Your task to perform on an android device: Open Yahoo.com Image 0: 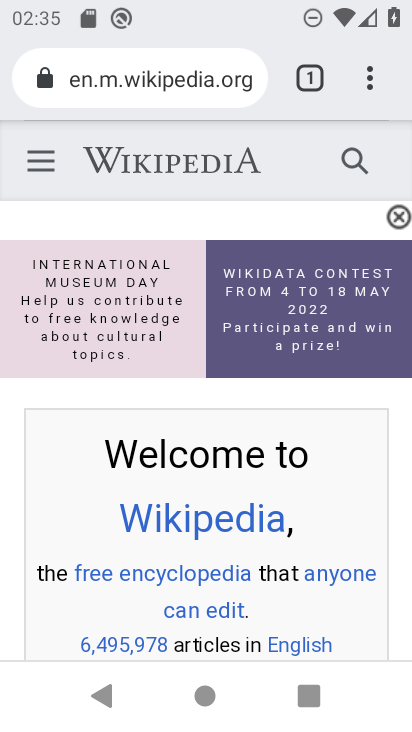
Step 0: press home button
Your task to perform on an android device: Open Yahoo.com Image 1: 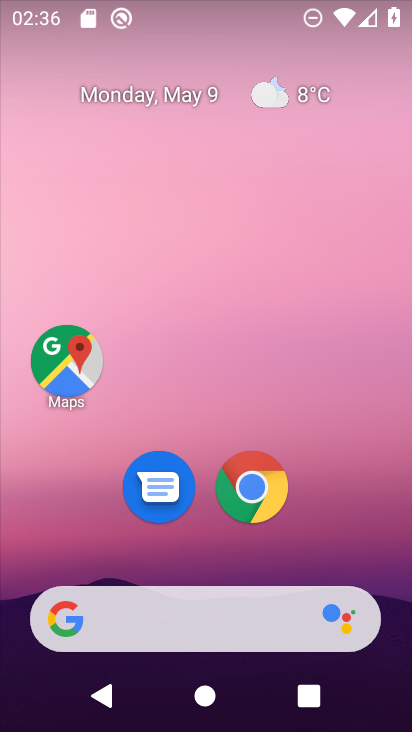
Step 1: click (259, 491)
Your task to perform on an android device: Open Yahoo.com Image 2: 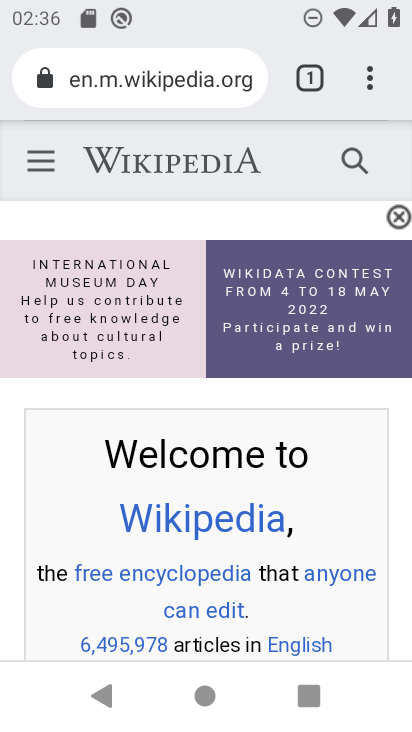
Step 2: click (213, 85)
Your task to perform on an android device: Open Yahoo.com Image 3: 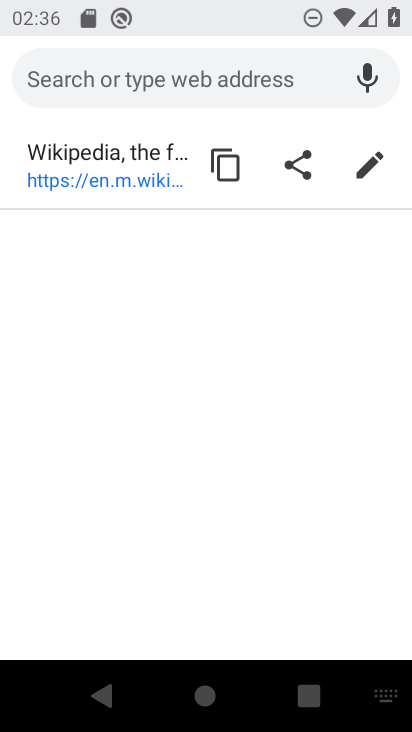
Step 3: type "yahoo.com"
Your task to perform on an android device: Open Yahoo.com Image 4: 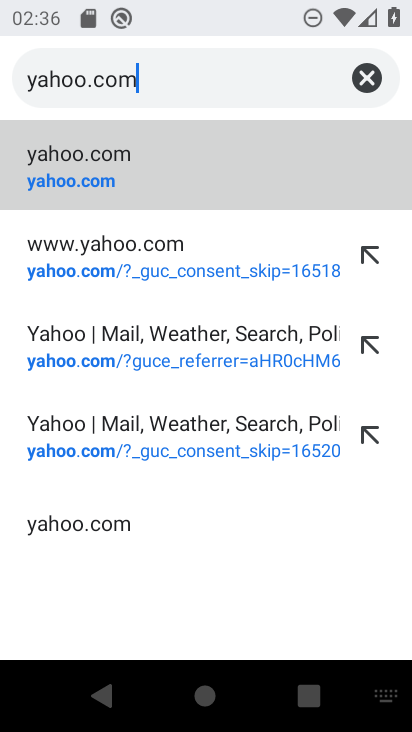
Step 4: click (137, 169)
Your task to perform on an android device: Open Yahoo.com Image 5: 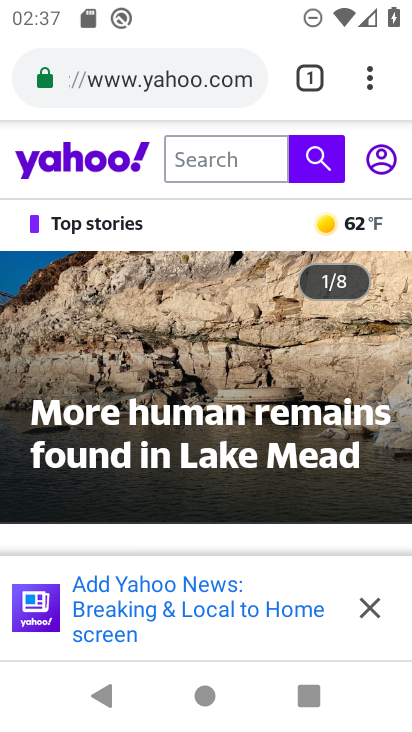
Step 5: task complete